Your task to perform on an android device: Is it going to rain this weekend? Image 0: 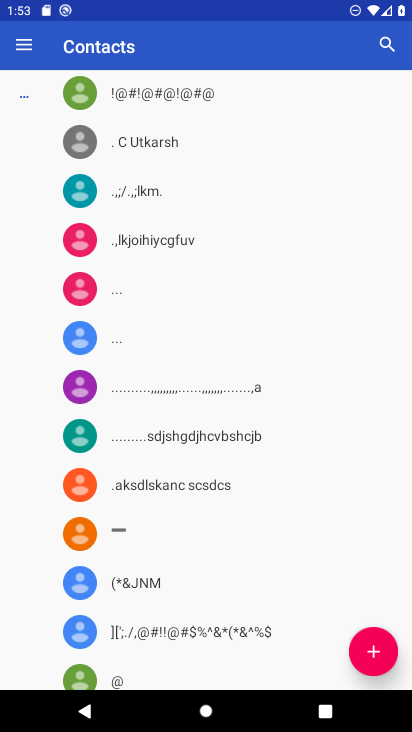
Step 0: press home button
Your task to perform on an android device: Is it going to rain this weekend? Image 1: 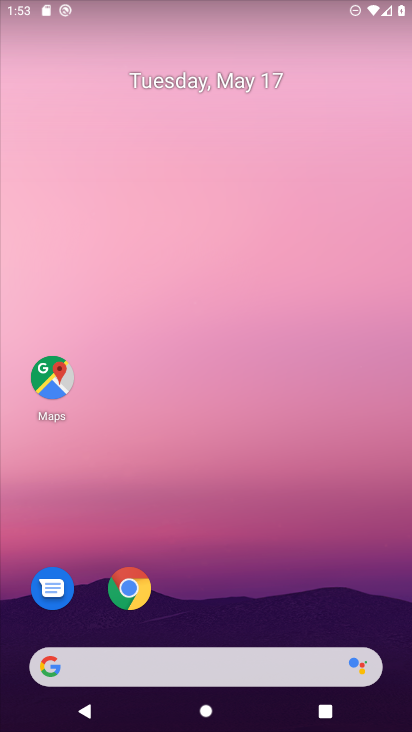
Step 1: click (124, 590)
Your task to perform on an android device: Is it going to rain this weekend? Image 2: 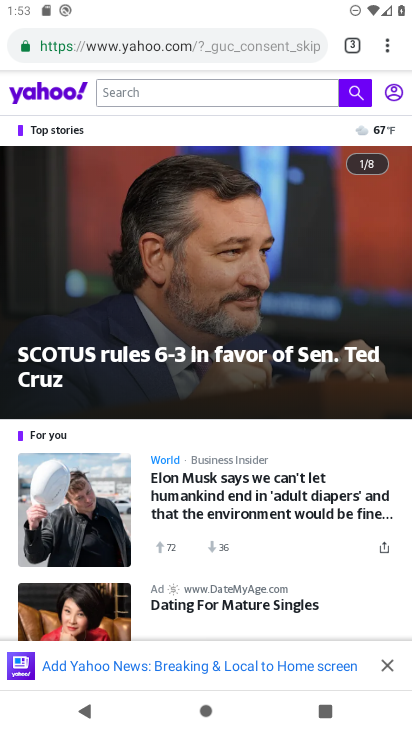
Step 2: click (354, 44)
Your task to perform on an android device: Is it going to rain this weekend? Image 3: 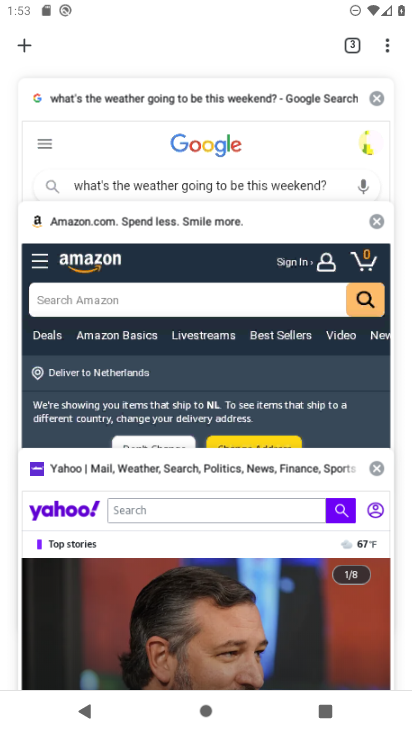
Step 3: click (26, 44)
Your task to perform on an android device: Is it going to rain this weekend? Image 4: 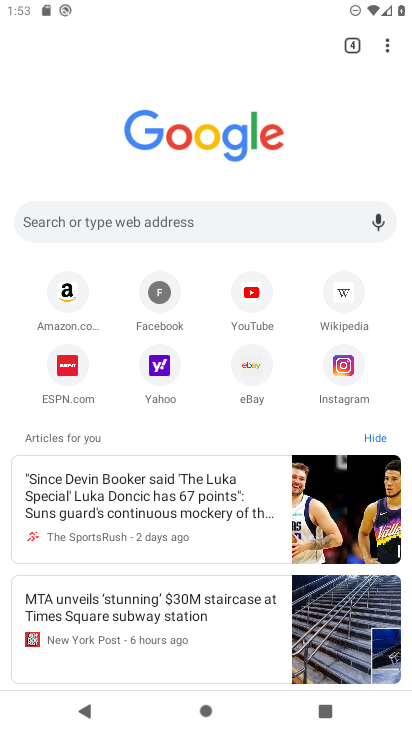
Step 4: click (191, 220)
Your task to perform on an android device: Is it going to rain this weekend? Image 5: 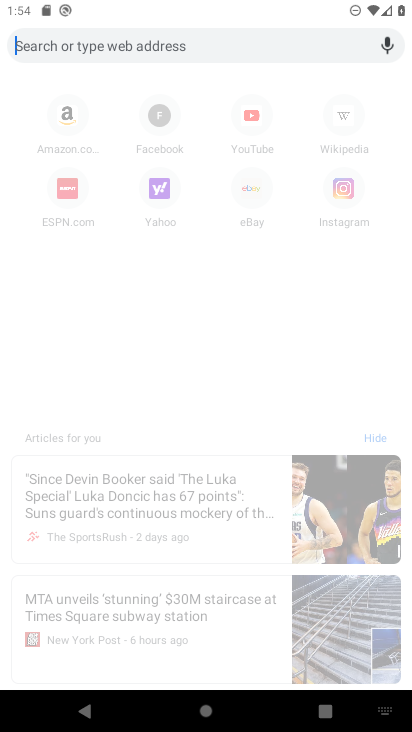
Step 5: type "is it going to rain this weekend?"
Your task to perform on an android device: Is it going to rain this weekend? Image 6: 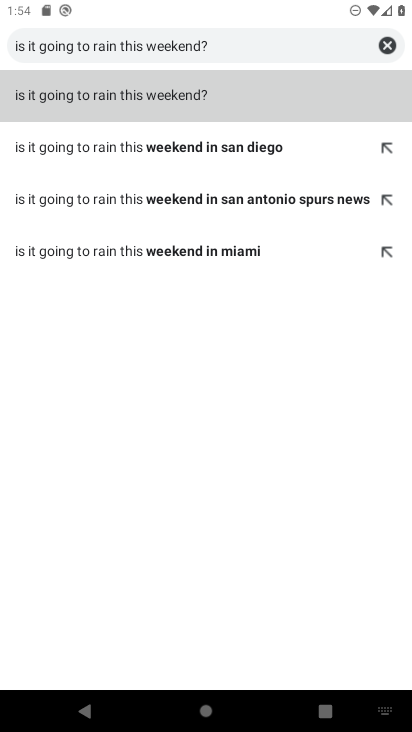
Step 6: click (125, 100)
Your task to perform on an android device: Is it going to rain this weekend? Image 7: 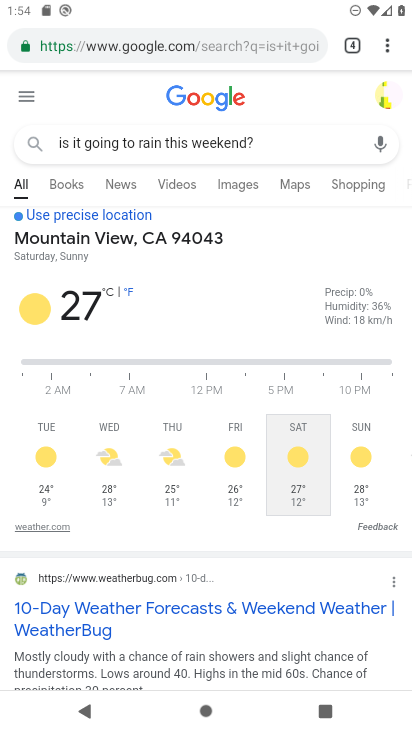
Step 7: drag from (274, 526) to (274, 293)
Your task to perform on an android device: Is it going to rain this weekend? Image 8: 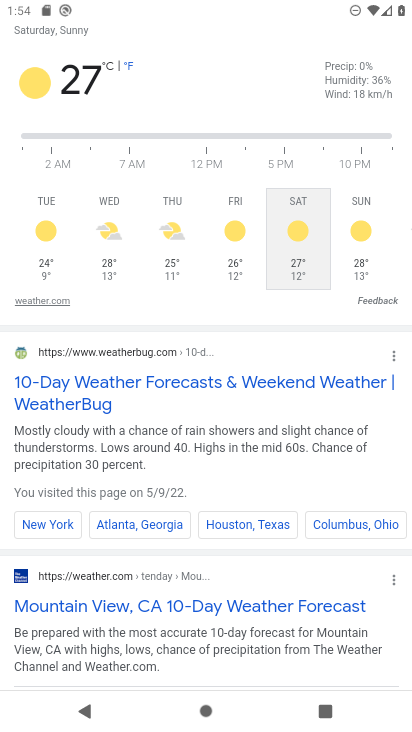
Step 8: click (364, 228)
Your task to perform on an android device: Is it going to rain this weekend? Image 9: 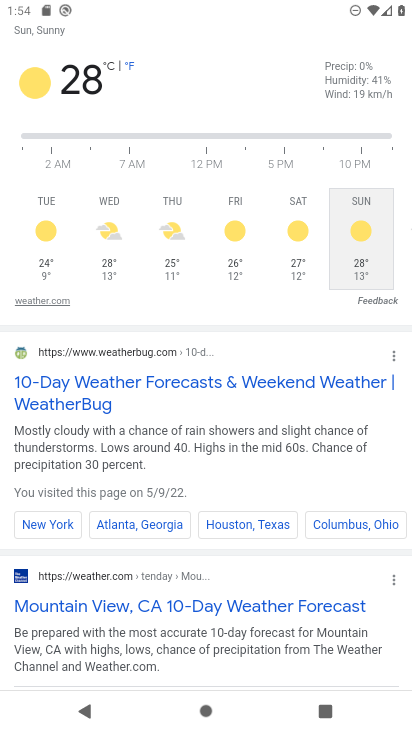
Step 9: task complete